Your task to perform on an android device: Open calendar and show me the third week of next month Image 0: 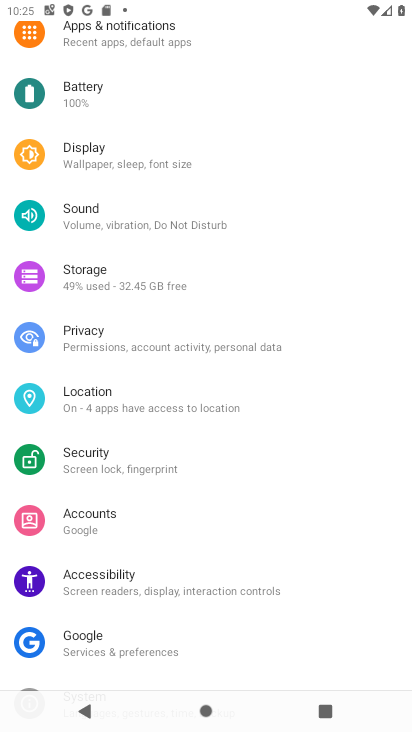
Step 0: press home button
Your task to perform on an android device: Open calendar and show me the third week of next month Image 1: 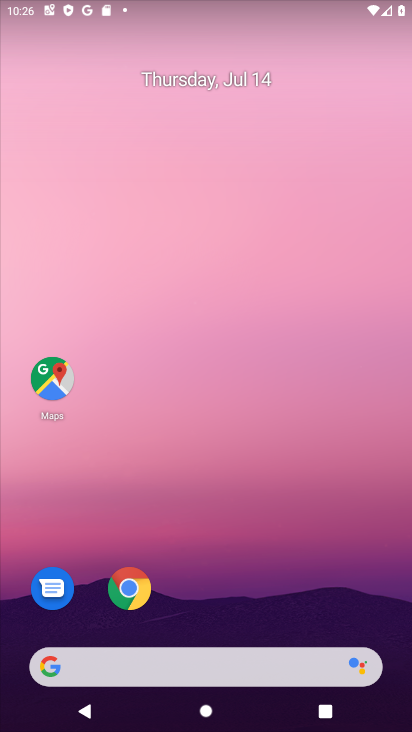
Step 1: drag from (196, 662) to (284, 89)
Your task to perform on an android device: Open calendar and show me the third week of next month Image 2: 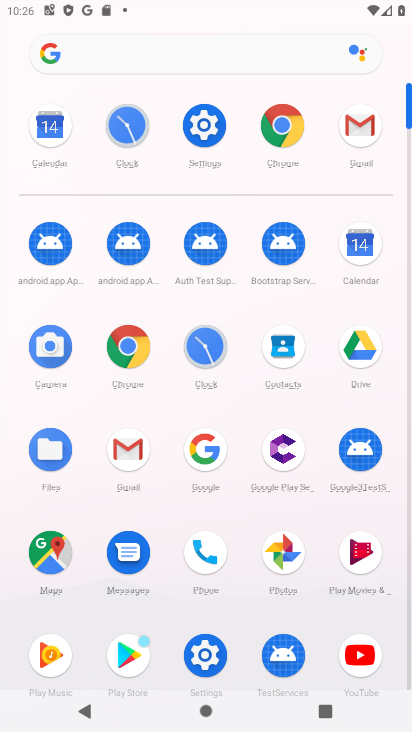
Step 2: click (47, 113)
Your task to perform on an android device: Open calendar and show me the third week of next month Image 3: 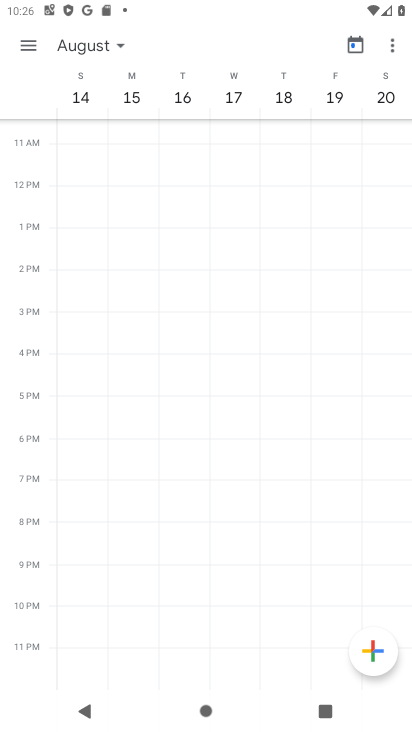
Step 3: task complete